Your task to perform on an android device: delete a single message in the gmail app Image 0: 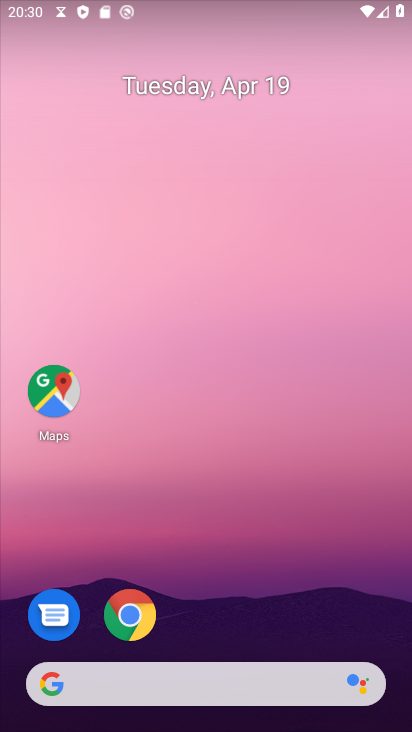
Step 0: drag from (390, 686) to (387, 64)
Your task to perform on an android device: delete a single message in the gmail app Image 1: 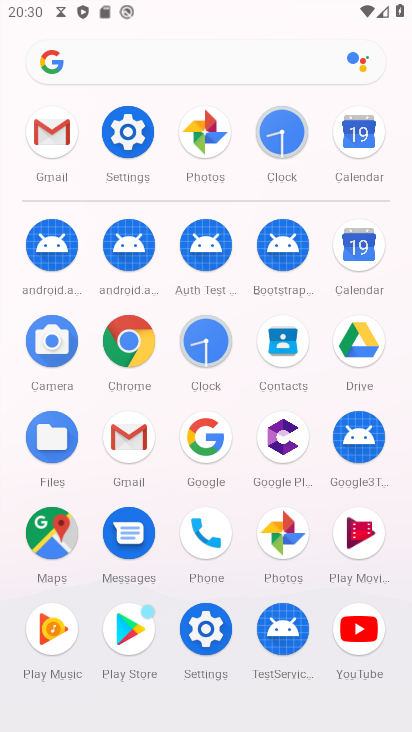
Step 1: drag from (16, 654) to (5, 461)
Your task to perform on an android device: delete a single message in the gmail app Image 2: 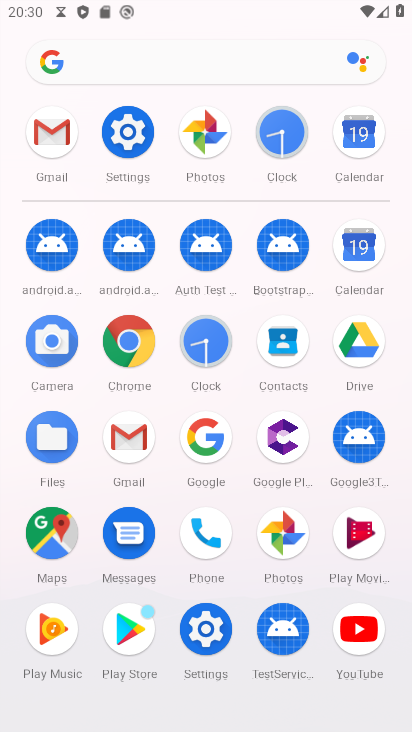
Step 2: click (50, 132)
Your task to perform on an android device: delete a single message in the gmail app Image 3: 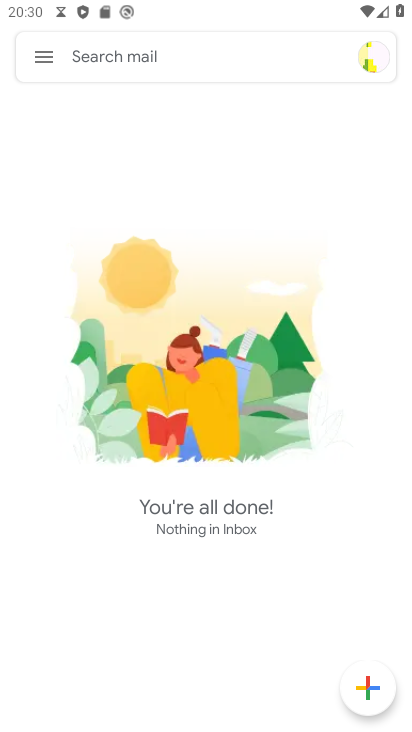
Step 3: click (50, 42)
Your task to perform on an android device: delete a single message in the gmail app Image 4: 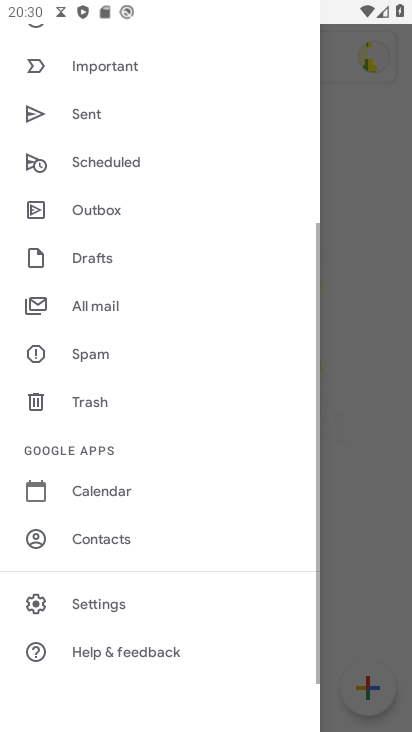
Step 4: drag from (145, 137) to (90, 428)
Your task to perform on an android device: delete a single message in the gmail app Image 5: 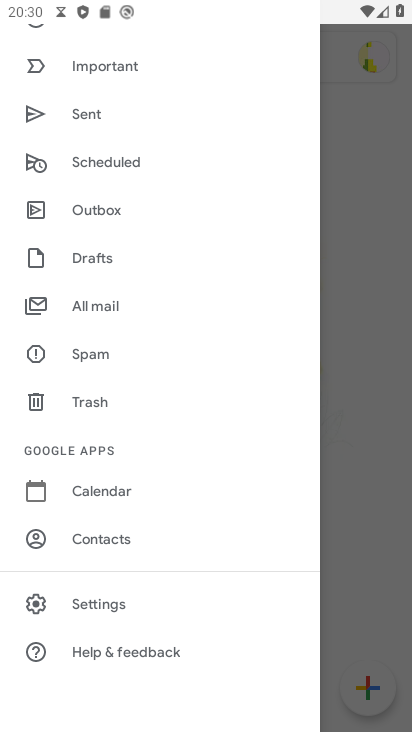
Step 5: click (95, 304)
Your task to perform on an android device: delete a single message in the gmail app Image 6: 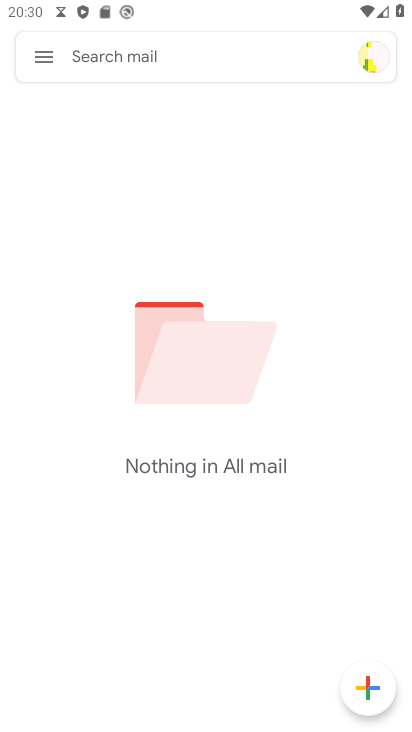
Step 6: click (46, 59)
Your task to perform on an android device: delete a single message in the gmail app Image 7: 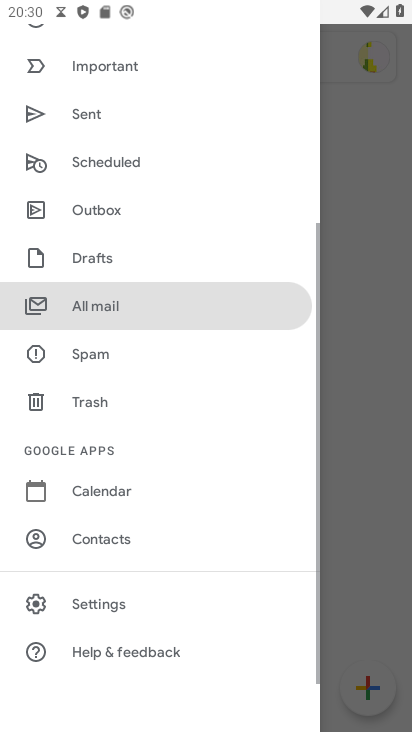
Step 7: drag from (138, 135) to (55, 523)
Your task to perform on an android device: delete a single message in the gmail app Image 8: 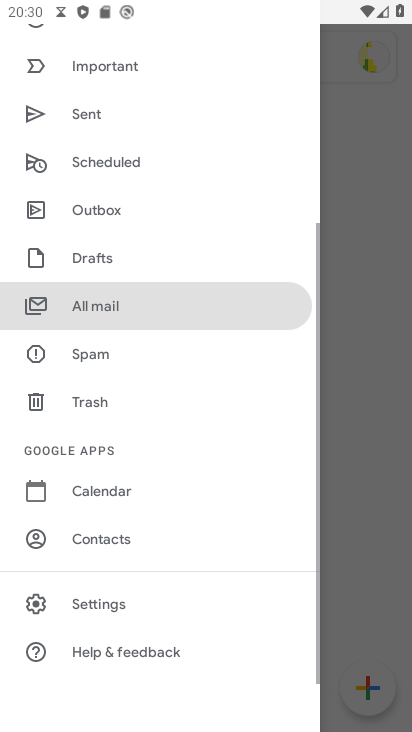
Step 8: drag from (135, 161) to (122, 446)
Your task to perform on an android device: delete a single message in the gmail app Image 9: 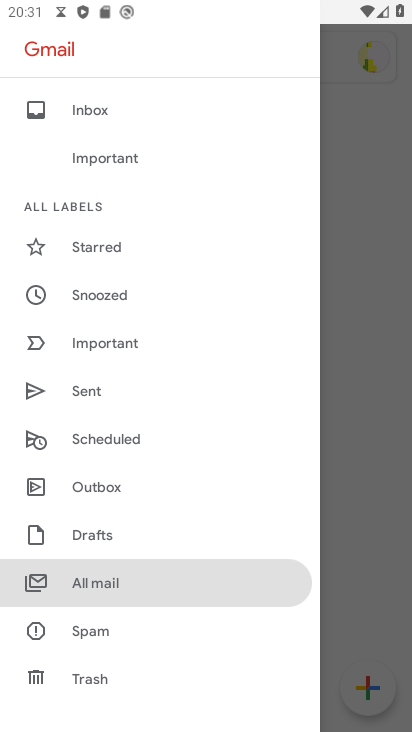
Step 9: click (118, 118)
Your task to perform on an android device: delete a single message in the gmail app Image 10: 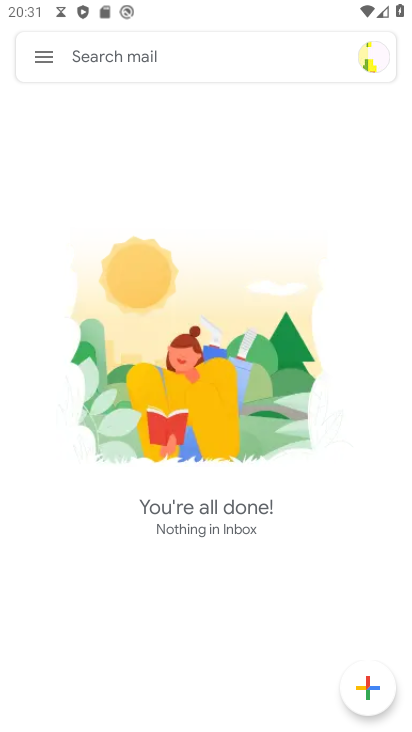
Step 10: task complete